Your task to perform on an android device: open app "Microsoft Outlook" Image 0: 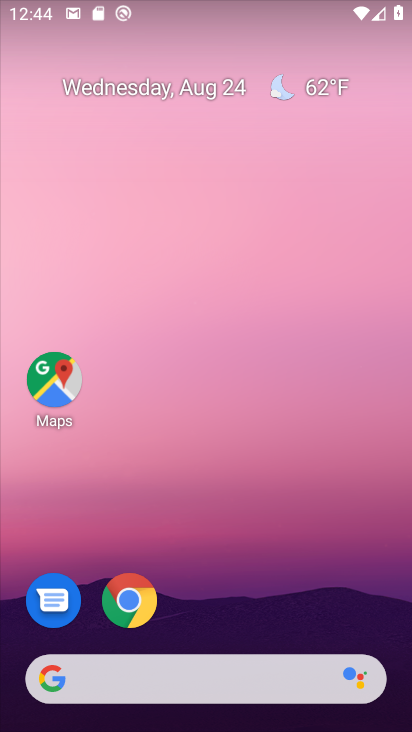
Step 0: drag from (276, 643) to (217, 62)
Your task to perform on an android device: open app "Microsoft Outlook" Image 1: 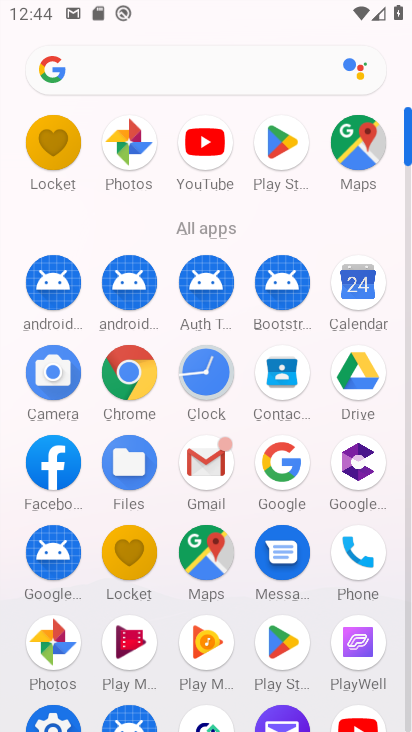
Step 1: click (301, 166)
Your task to perform on an android device: open app "Microsoft Outlook" Image 2: 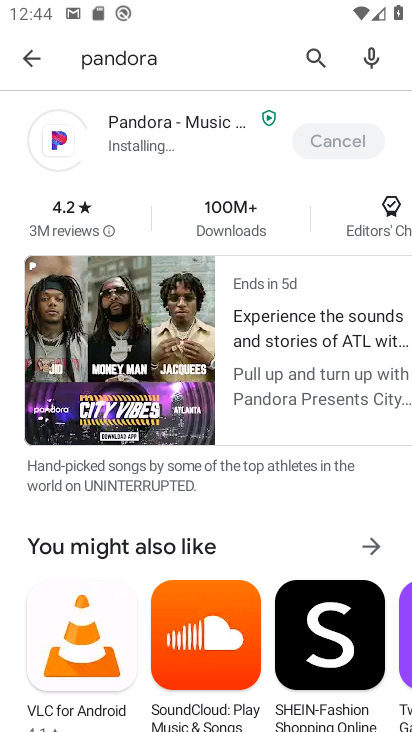
Step 2: click (312, 58)
Your task to perform on an android device: open app "Microsoft Outlook" Image 3: 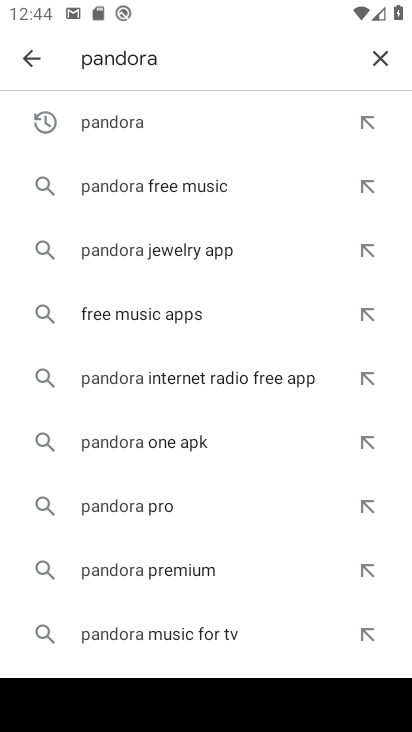
Step 3: click (370, 58)
Your task to perform on an android device: open app "Microsoft Outlook" Image 4: 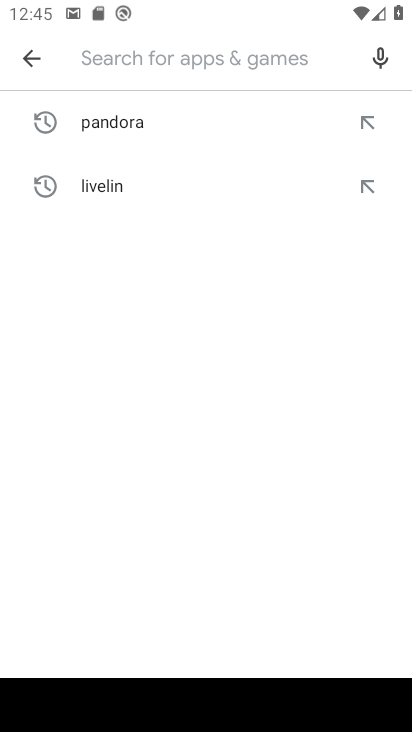
Step 4: type "microsoft outlook"
Your task to perform on an android device: open app "Microsoft Outlook" Image 5: 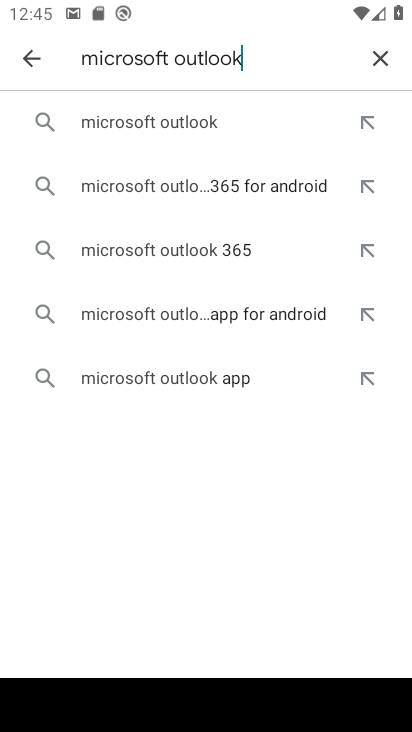
Step 5: click (131, 134)
Your task to perform on an android device: open app "Microsoft Outlook" Image 6: 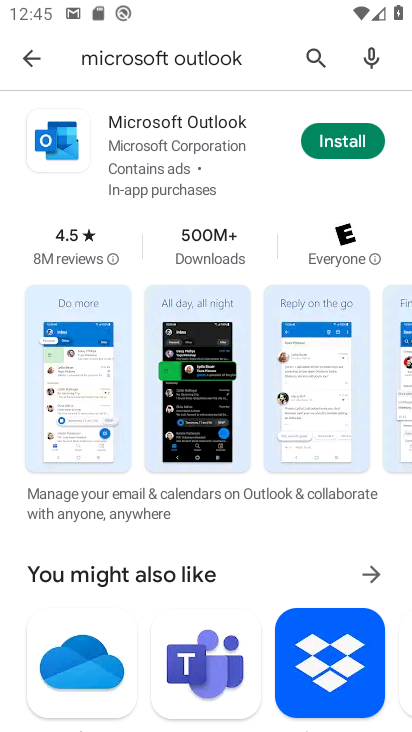
Step 6: click (320, 154)
Your task to perform on an android device: open app "Microsoft Outlook" Image 7: 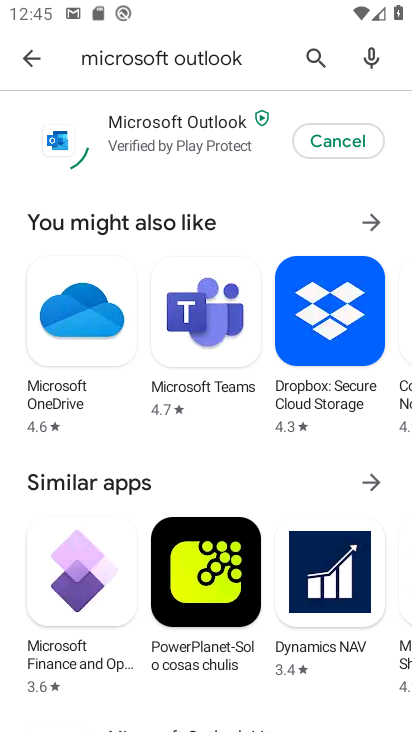
Step 7: task complete